Your task to perform on an android device: Go to Google maps Image 0: 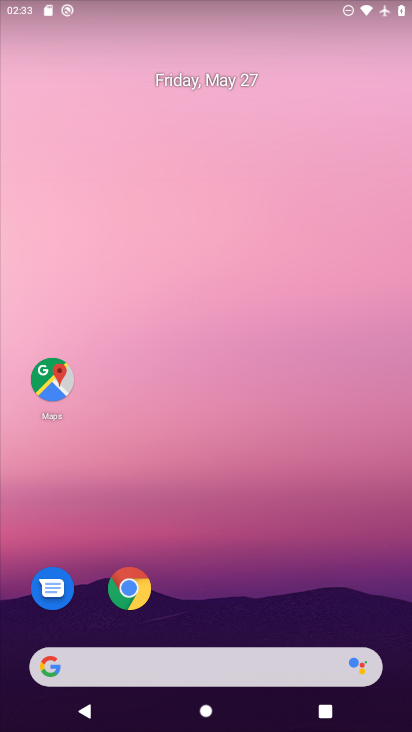
Step 0: click (51, 375)
Your task to perform on an android device: Go to Google maps Image 1: 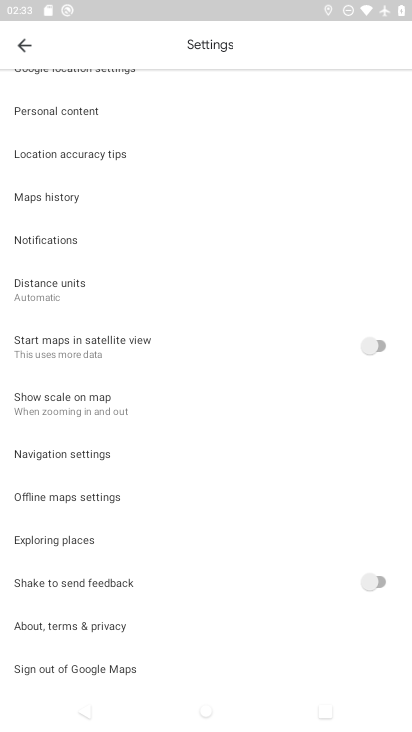
Step 1: press back button
Your task to perform on an android device: Go to Google maps Image 2: 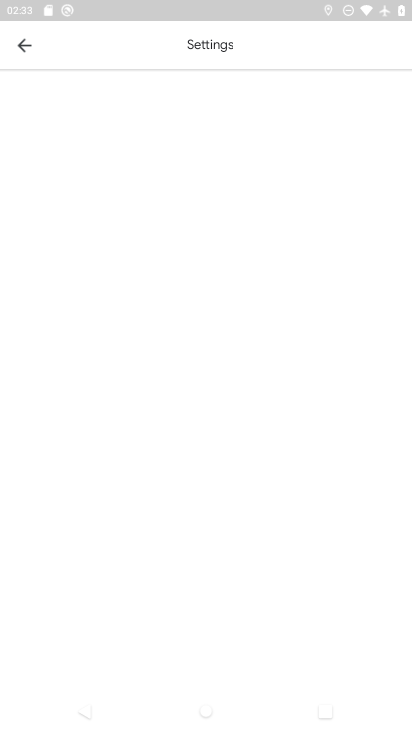
Step 2: press back button
Your task to perform on an android device: Go to Google maps Image 3: 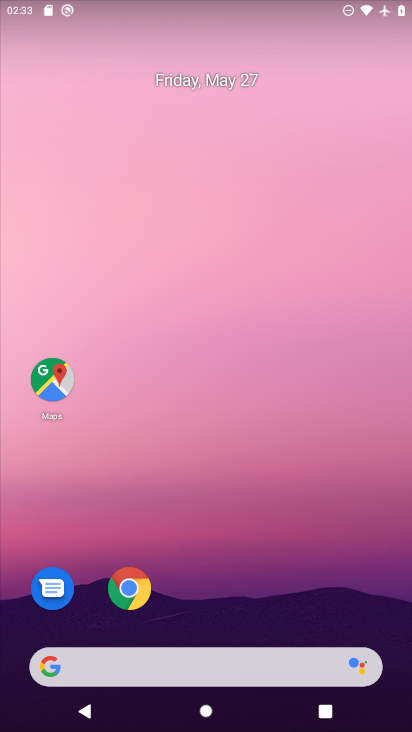
Step 3: click (51, 377)
Your task to perform on an android device: Go to Google maps Image 4: 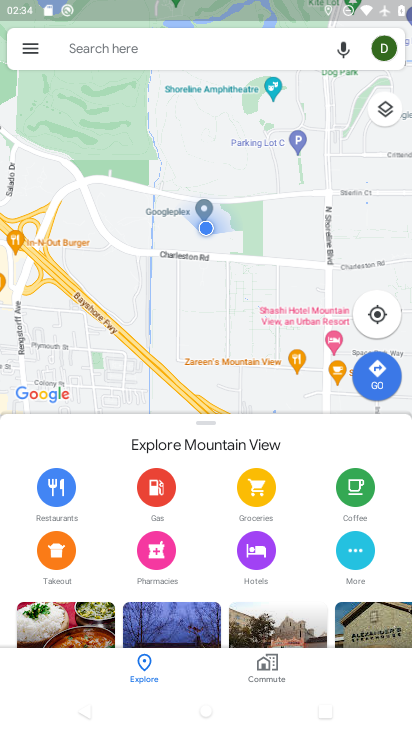
Step 4: task complete